Your task to perform on an android device: Clear the shopping cart on amazon.com. Search for "razer huntsman" on amazon.com, select the first entry, and add it to the cart. Image 0: 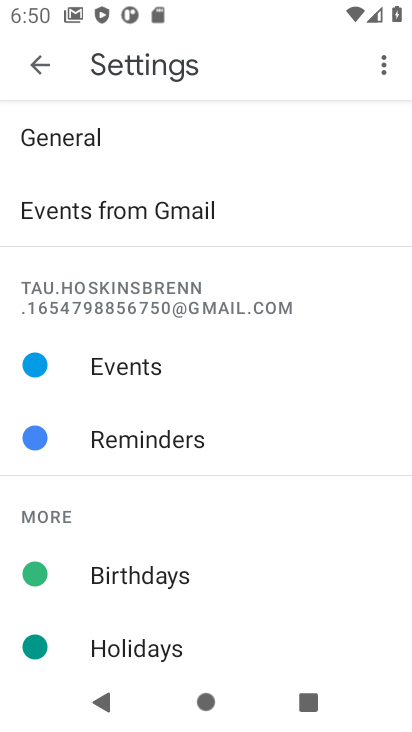
Step 0: press home button
Your task to perform on an android device: Clear the shopping cart on amazon.com. Search for "razer huntsman" on amazon.com, select the first entry, and add it to the cart. Image 1: 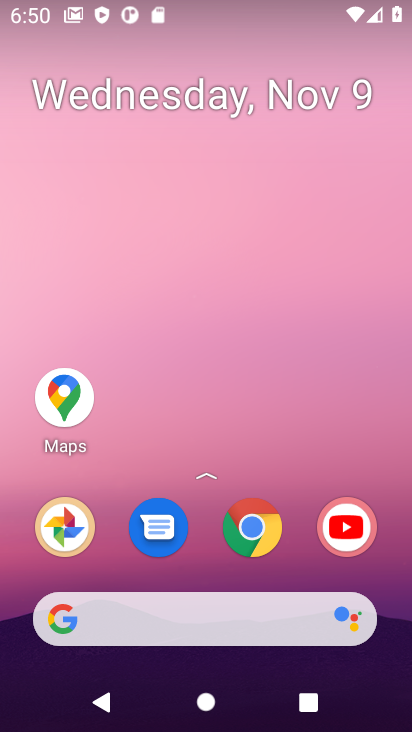
Step 1: click (259, 530)
Your task to perform on an android device: Clear the shopping cart on amazon.com. Search for "razer huntsman" on amazon.com, select the first entry, and add it to the cart. Image 2: 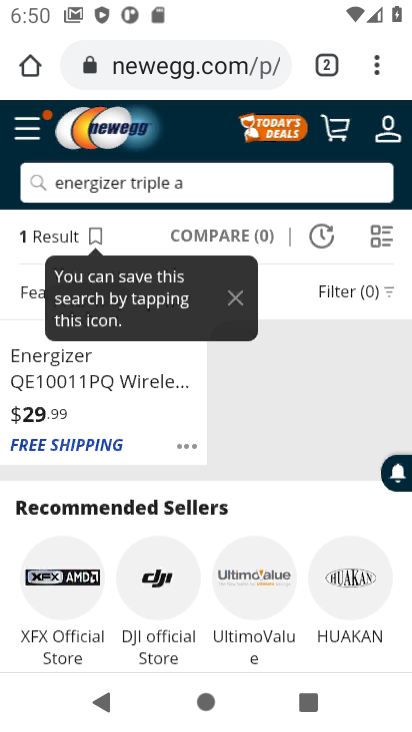
Step 2: click (185, 67)
Your task to perform on an android device: Clear the shopping cart on amazon.com. Search for "razer huntsman" on amazon.com, select the first entry, and add it to the cart. Image 3: 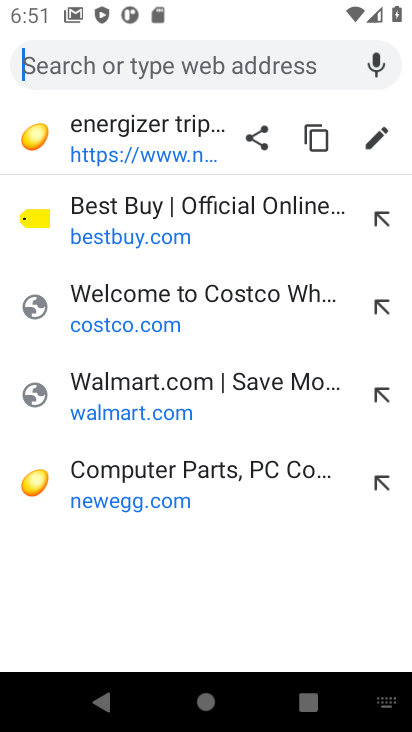
Step 3: type "amazon.com"
Your task to perform on an android device: Clear the shopping cart on amazon.com. Search for "razer huntsman" on amazon.com, select the first entry, and add it to the cart. Image 4: 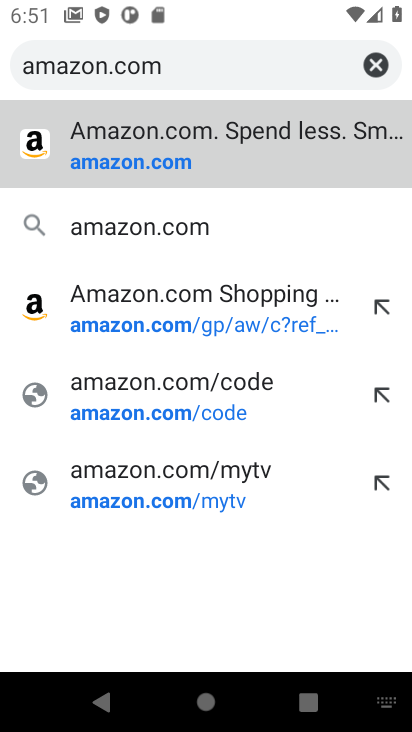
Step 4: click (152, 176)
Your task to perform on an android device: Clear the shopping cart on amazon.com. Search for "razer huntsman" on amazon.com, select the first entry, and add it to the cart. Image 5: 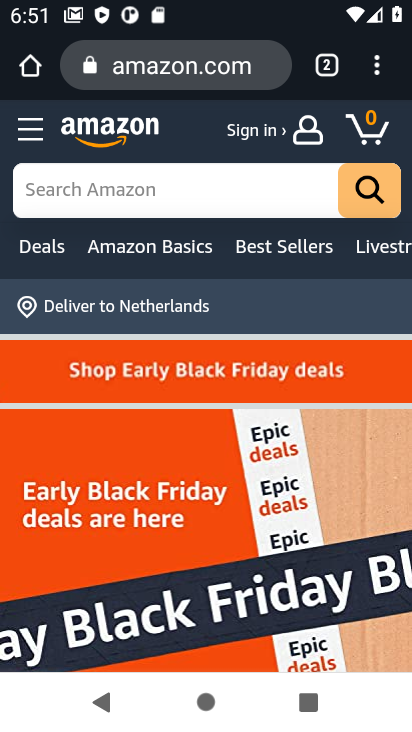
Step 5: click (357, 130)
Your task to perform on an android device: Clear the shopping cart on amazon.com. Search for "razer huntsman" on amazon.com, select the first entry, and add it to the cart. Image 6: 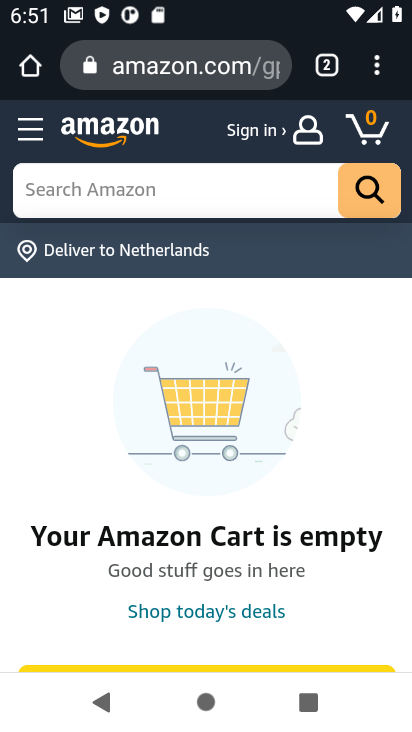
Step 6: drag from (273, 500) to (264, 242)
Your task to perform on an android device: Clear the shopping cart on amazon.com. Search for "razer huntsman" on amazon.com, select the first entry, and add it to the cart. Image 7: 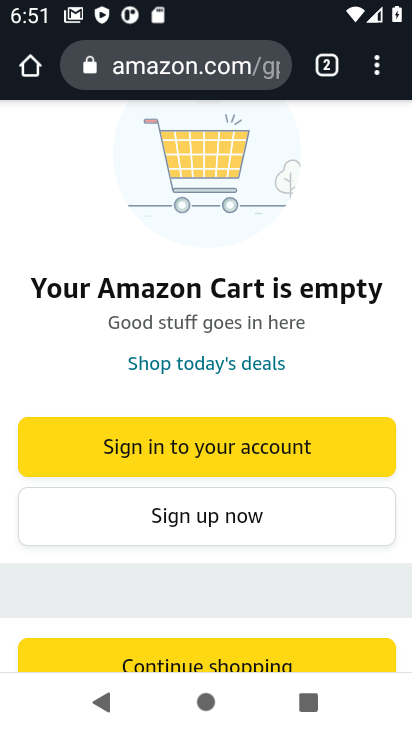
Step 7: drag from (173, 593) to (155, 390)
Your task to perform on an android device: Clear the shopping cart on amazon.com. Search for "razer huntsman" on amazon.com, select the first entry, and add it to the cart. Image 8: 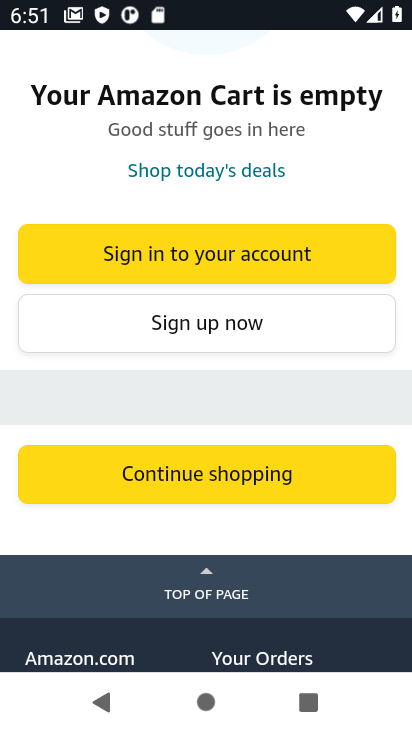
Step 8: click (162, 480)
Your task to perform on an android device: Clear the shopping cart on amazon.com. Search for "razer huntsman" on amazon.com, select the first entry, and add it to the cart. Image 9: 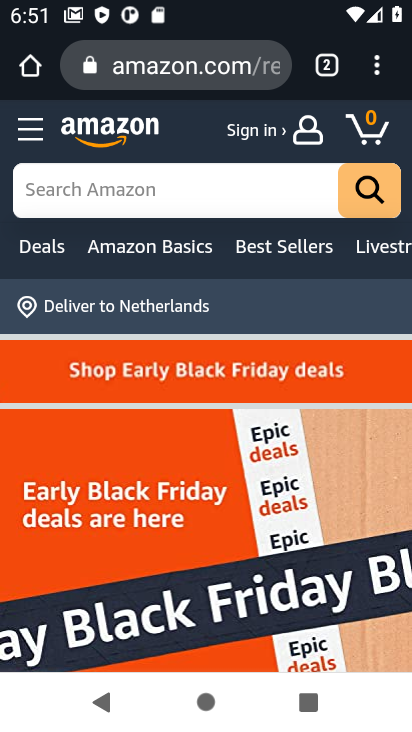
Step 9: click (150, 175)
Your task to perform on an android device: Clear the shopping cart on amazon.com. Search for "razer huntsman" on amazon.com, select the first entry, and add it to the cart. Image 10: 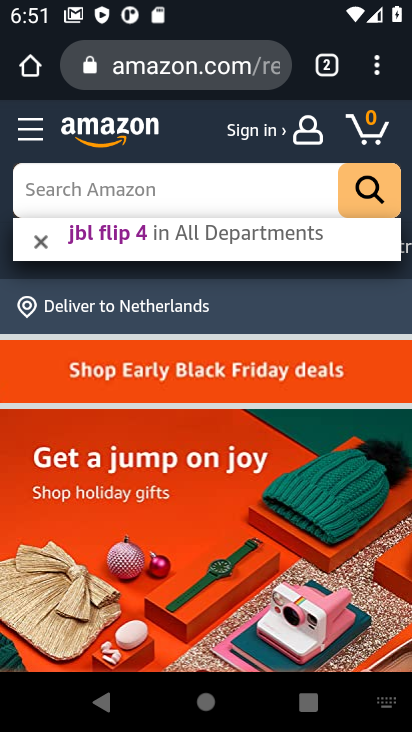
Step 10: type "razer huntsman"
Your task to perform on an android device: Clear the shopping cart on amazon.com. Search for "razer huntsman" on amazon.com, select the first entry, and add it to the cart. Image 11: 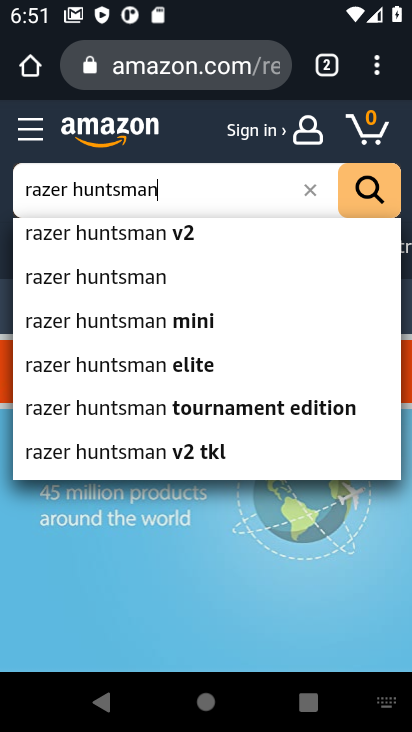
Step 11: click (96, 279)
Your task to perform on an android device: Clear the shopping cart on amazon.com. Search for "razer huntsman" on amazon.com, select the first entry, and add it to the cart. Image 12: 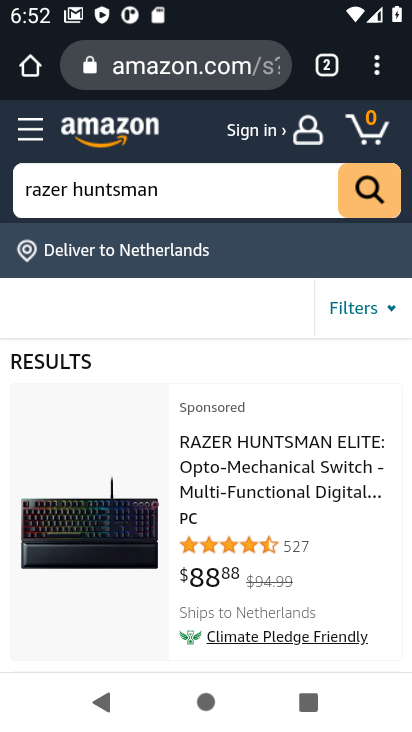
Step 12: click (112, 537)
Your task to perform on an android device: Clear the shopping cart on amazon.com. Search for "razer huntsman" on amazon.com, select the first entry, and add it to the cart. Image 13: 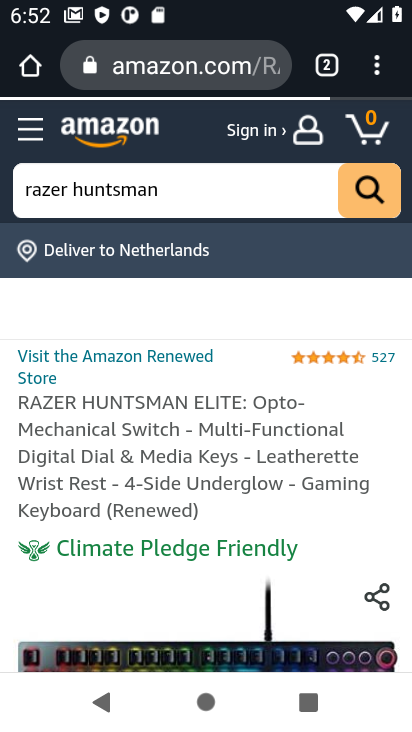
Step 13: drag from (205, 530) to (227, 193)
Your task to perform on an android device: Clear the shopping cart on amazon.com. Search for "razer huntsman" on amazon.com, select the first entry, and add it to the cart. Image 14: 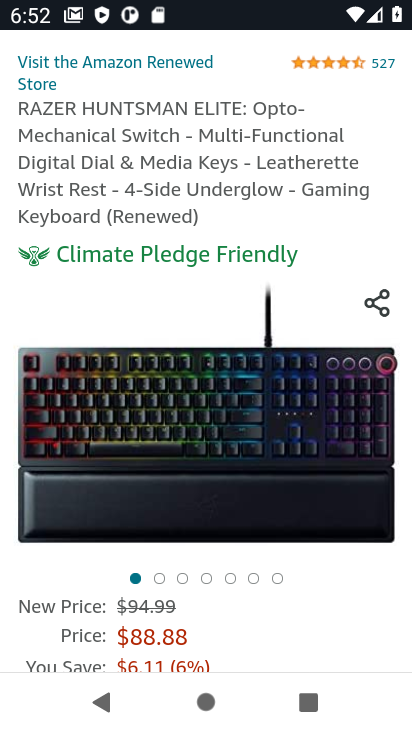
Step 14: drag from (187, 410) to (205, 113)
Your task to perform on an android device: Clear the shopping cart on amazon.com. Search for "razer huntsman" on amazon.com, select the first entry, and add it to the cart. Image 15: 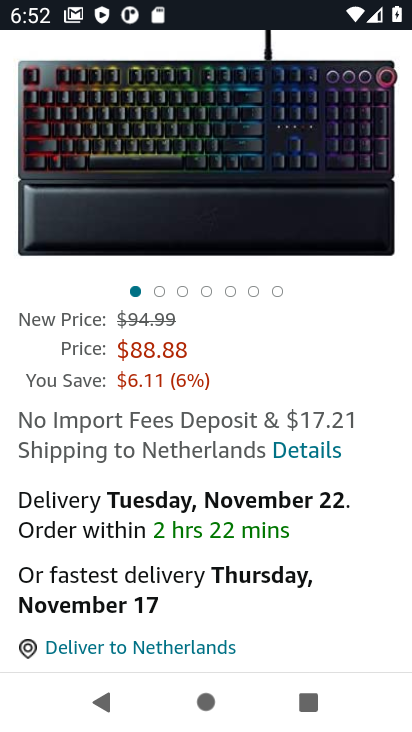
Step 15: drag from (169, 435) to (176, 193)
Your task to perform on an android device: Clear the shopping cart on amazon.com. Search for "razer huntsman" on amazon.com, select the first entry, and add it to the cart. Image 16: 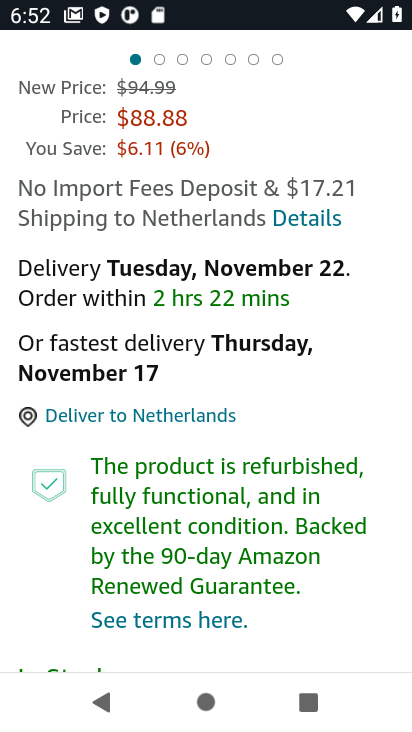
Step 16: drag from (162, 470) to (132, 145)
Your task to perform on an android device: Clear the shopping cart on amazon.com. Search for "razer huntsman" on amazon.com, select the first entry, and add it to the cart. Image 17: 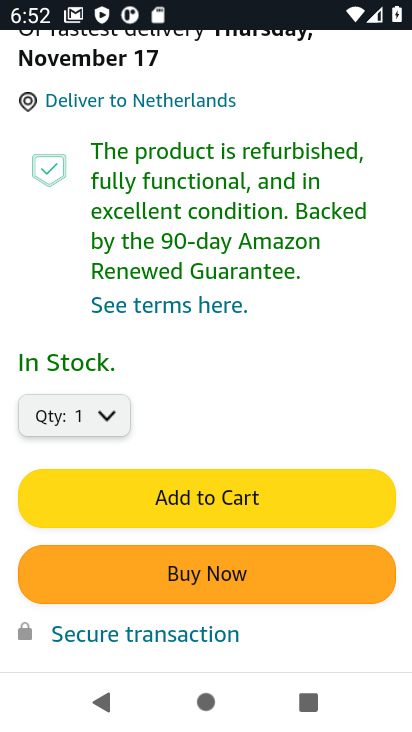
Step 17: click (141, 487)
Your task to perform on an android device: Clear the shopping cart on amazon.com. Search for "razer huntsman" on amazon.com, select the first entry, and add it to the cart. Image 18: 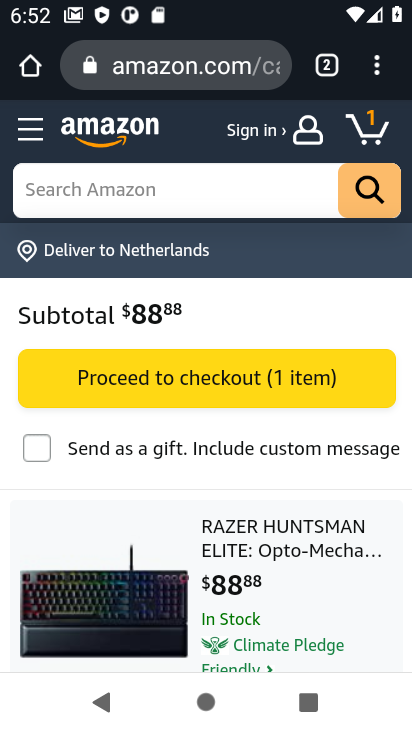
Step 18: task complete